Your task to perform on an android device: find snoozed emails in the gmail app Image 0: 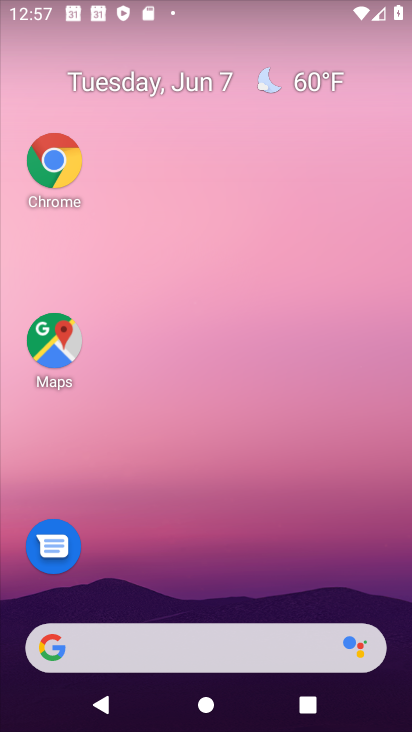
Step 0: drag from (201, 597) to (220, 66)
Your task to perform on an android device: find snoozed emails in the gmail app Image 1: 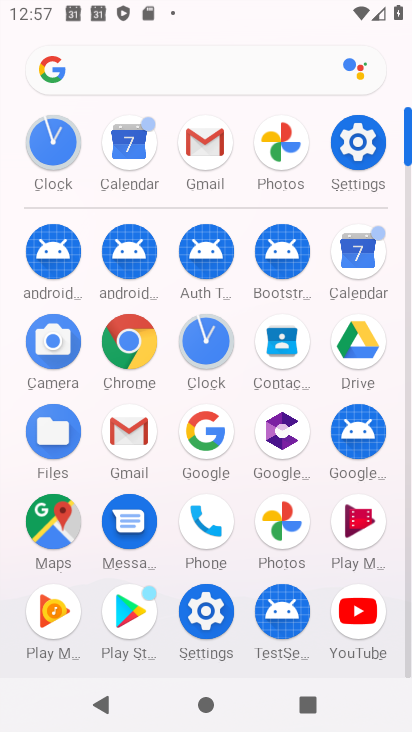
Step 1: click (113, 443)
Your task to perform on an android device: find snoozed emails in the gmail app Image 2: 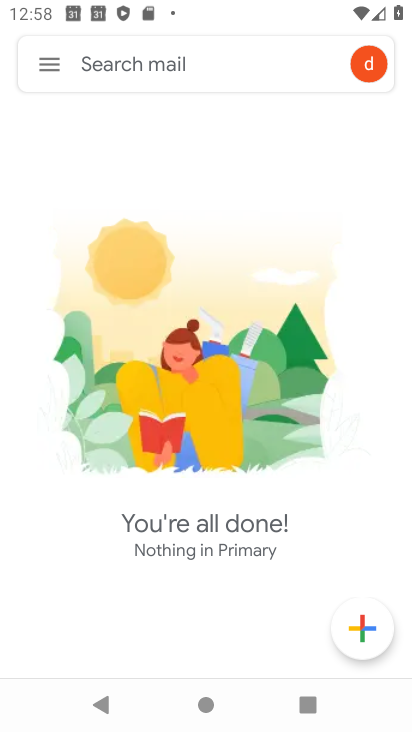
Step 2: click (53, 101)
Your task to perform on an android device: find snoozed emails in the gmail app Image 3: 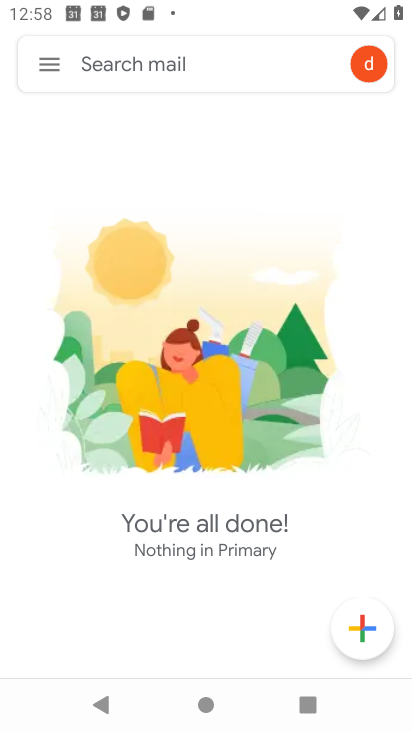
Step 3: click (51, 61)
Your task to perform on an android device: find snoozed emails in the gmail app Image 4: 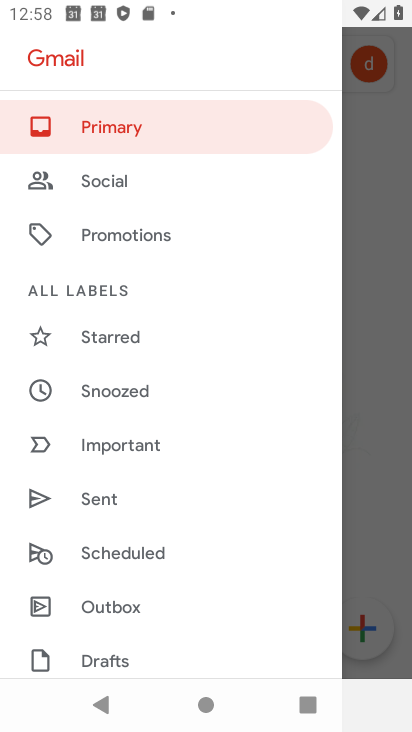
Step 4: click (125, 394)
Your task to perform on an android device: find snoozed emails in the gmail app Image 5: 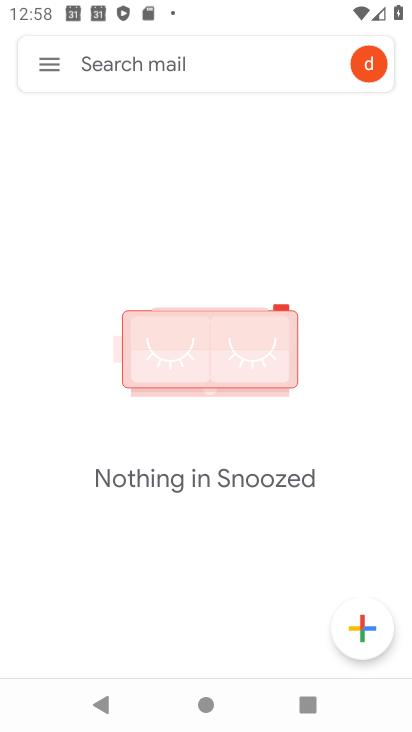
Step 5: task complete